Your task to perform on an android device: toggle show notifications on the lock screen Image 0: 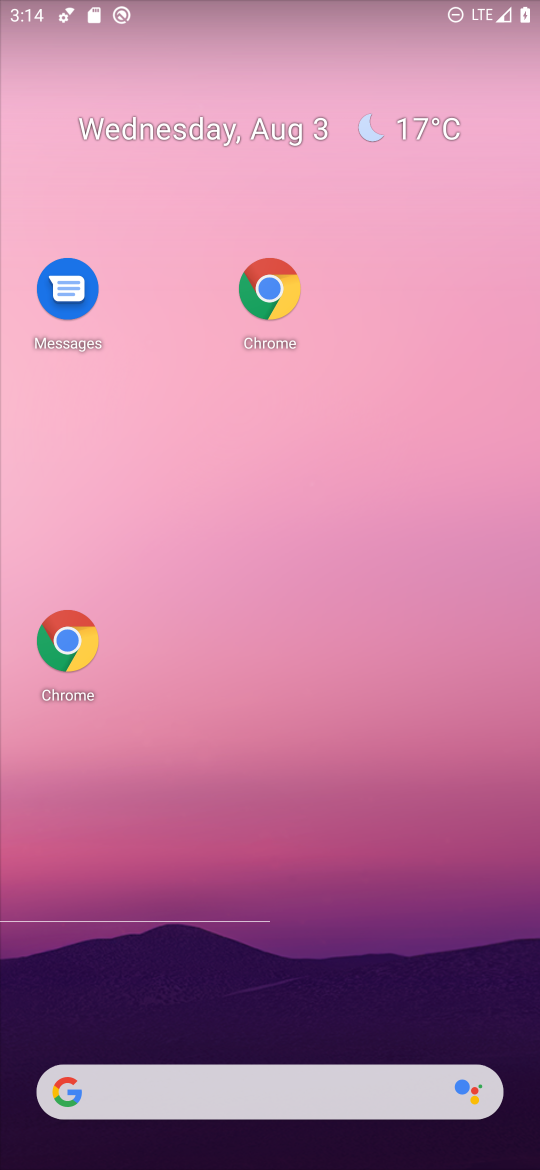
Step 0: drag from (386, 975) to (386, 143)
Your task to perform on an android device: toggle show notifications on the lock screen Image 1: 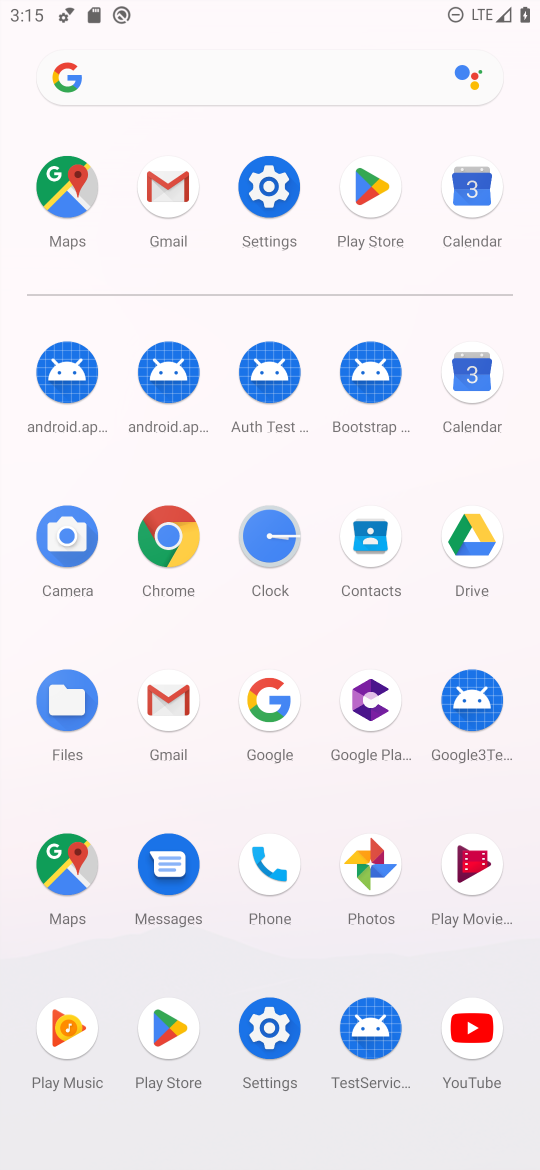
Step 1: click (271, 1081)
Your task to perform on an android device: toggle show notifications on the lock screen Image 2: 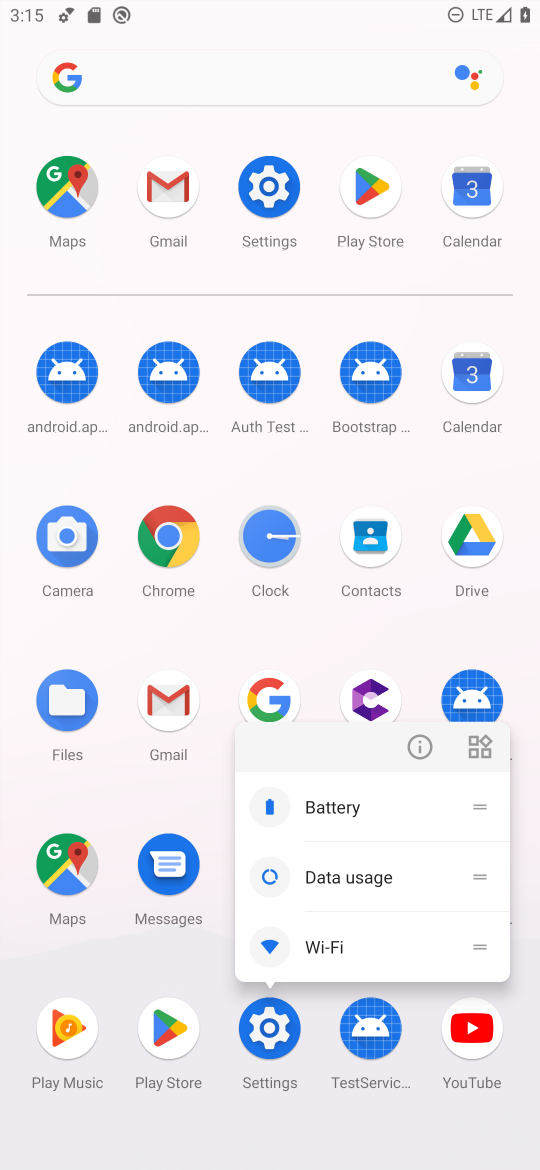
Step 2: click (271, 1063)
Your task to perform on an android device: toggle show notifications on the lock screen Image 3: 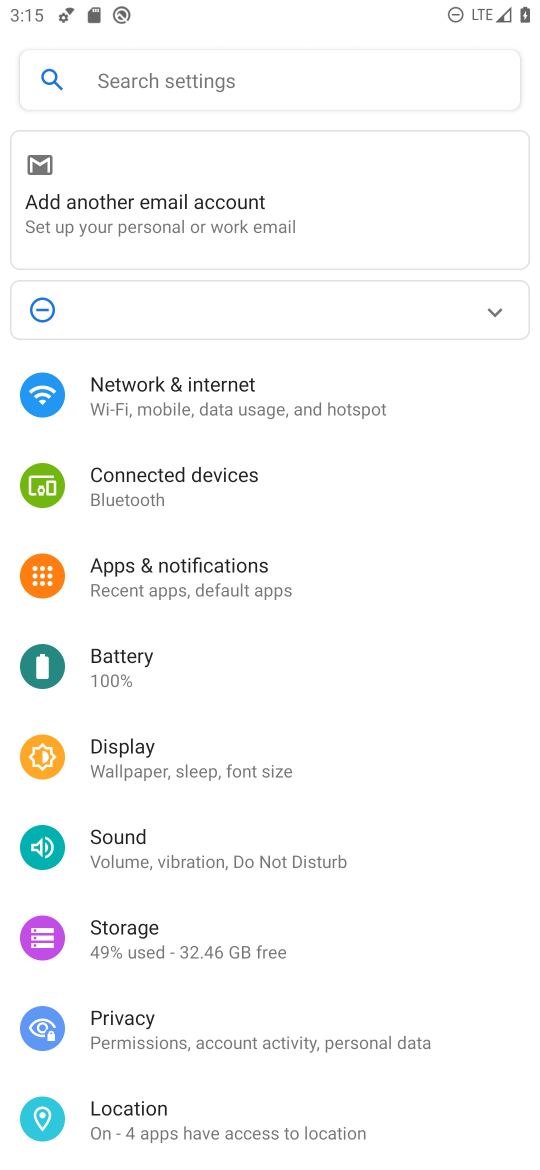
Step 3: drag from (147, 1066) to (157, 571)
Your task to perform on an android device: toggle show notifications on the lock screen Image 4: 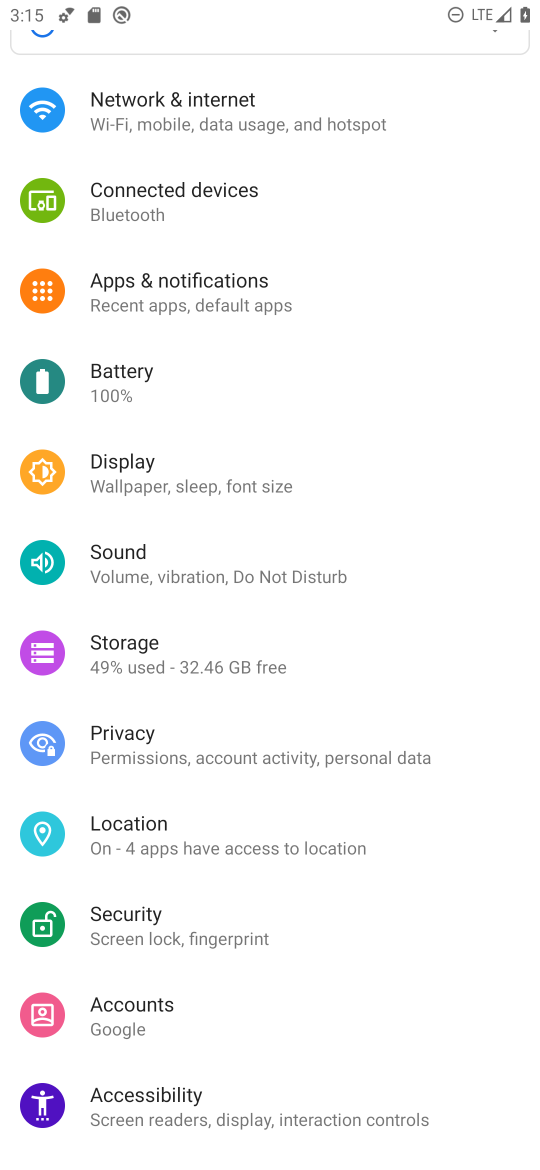
Step 4: drag from (200, 1048) to (243, 592)
Your task to perform on an android device: toggle show notifications on the lock screen Image 5: 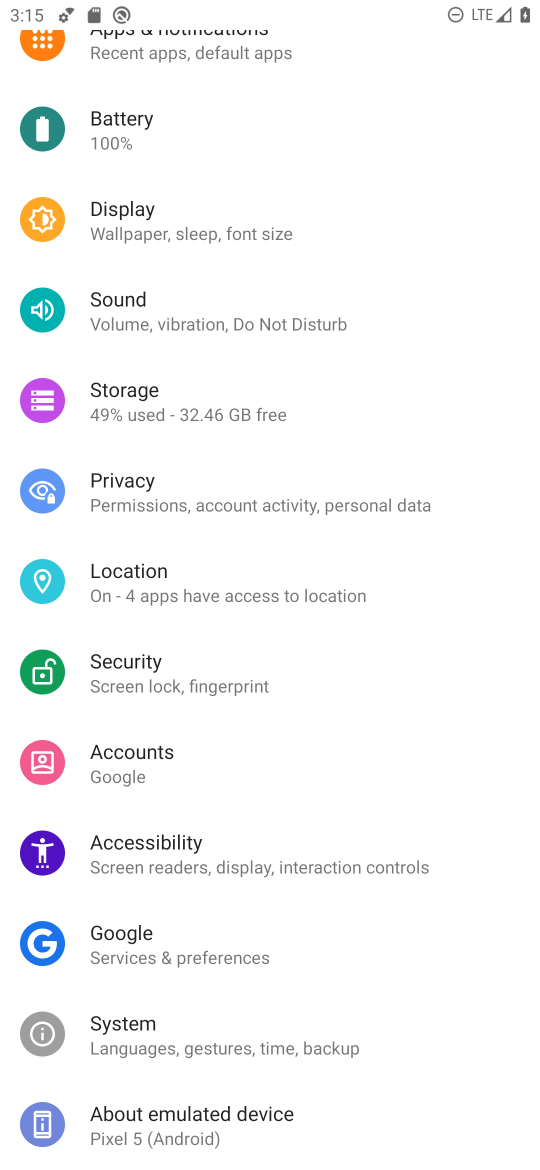
Step 5: drag from (192, 857) to (224, 1032)
Your task to perform on an android device: toggle show notifications on the lock screen Image 6: 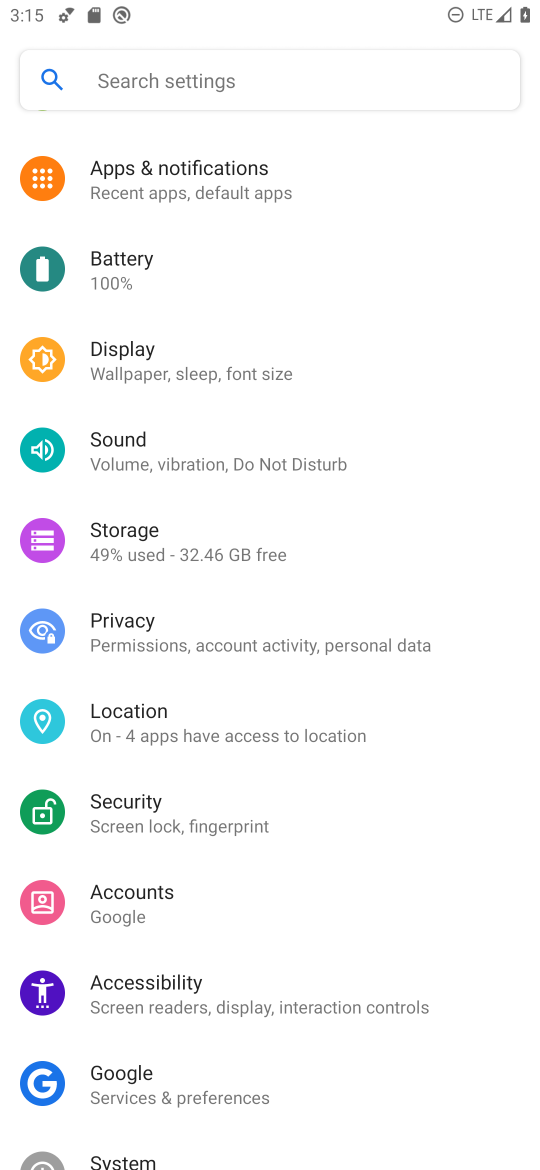
Step 6: click (230, 211)
Your task to perform on an android device: toggle show notifications on the lock screen Image 7: 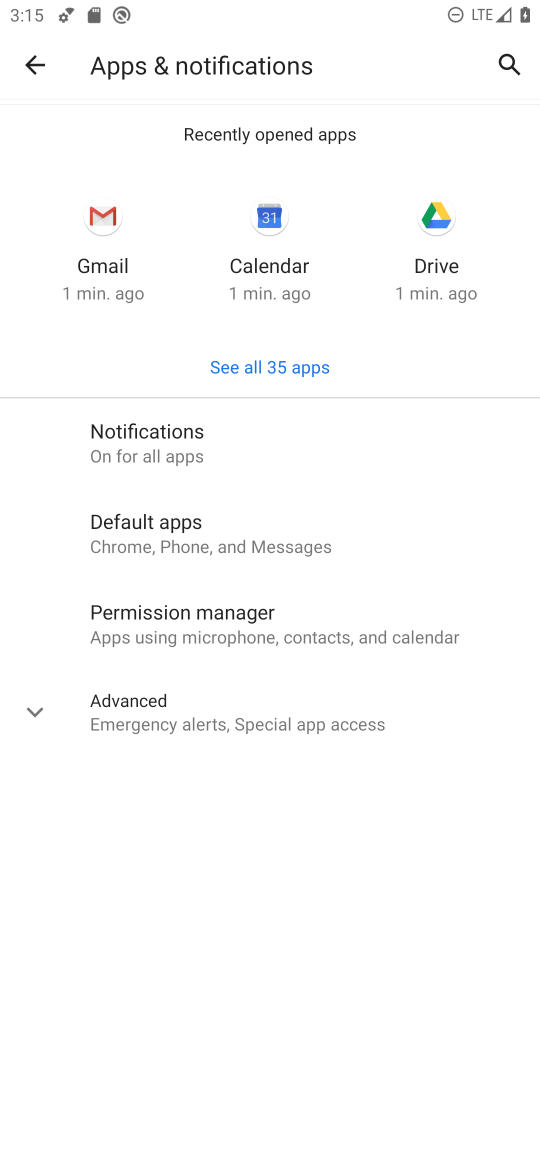
Step 7: task complete